Your task to perform on an android device: Show me the alarms in the clock app Image 0: 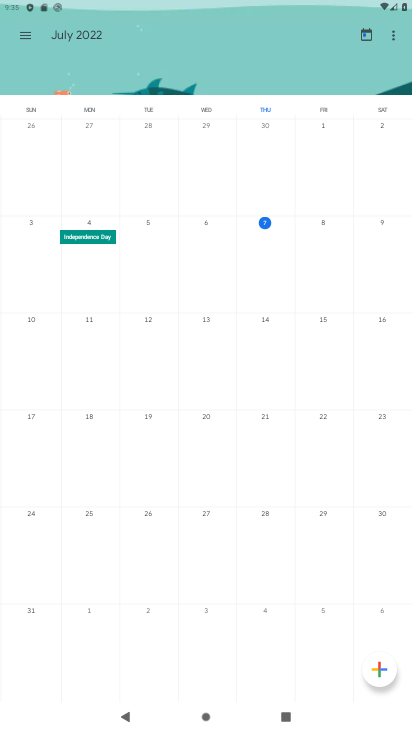
Step 0: press home button
Your task to perform on an android device: Show me the alarms in the clock app Image 1: 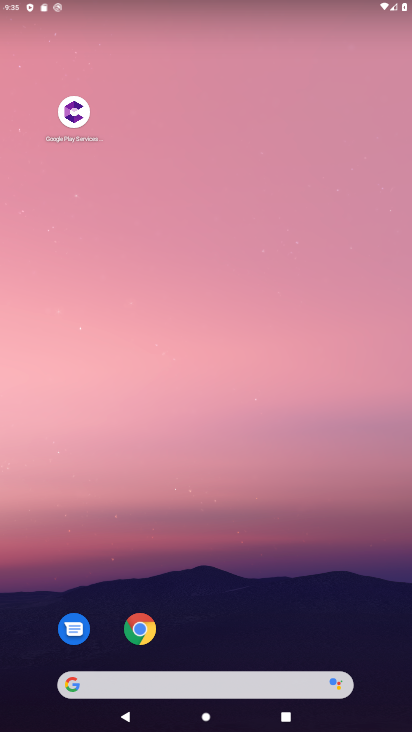
Step 1: drag from (234, 641) to (215, 234)
Your task to perform on an android device: Show me the alarms in the clock app Image 2: 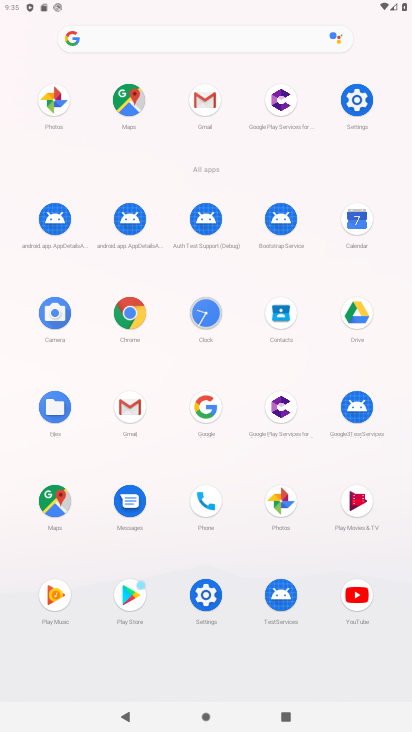
Step 2: click (198, 329)
Your task to perform on an android device: Show me the alarms in the clock app Image 3: 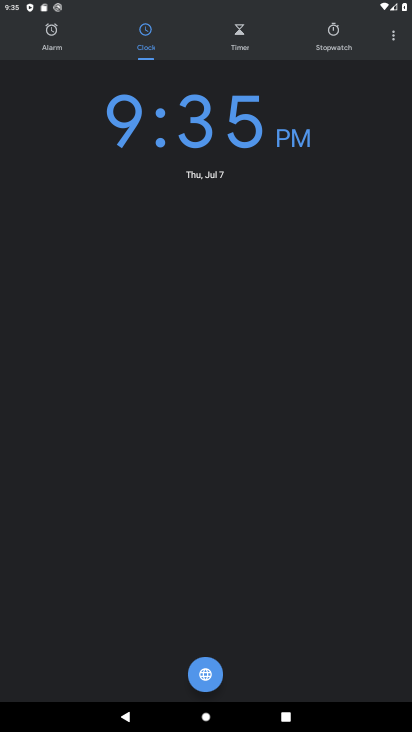
Step 3: click (50, 39)
Your task to perform on an android device: Show me the alarms in the clock app Image 4: 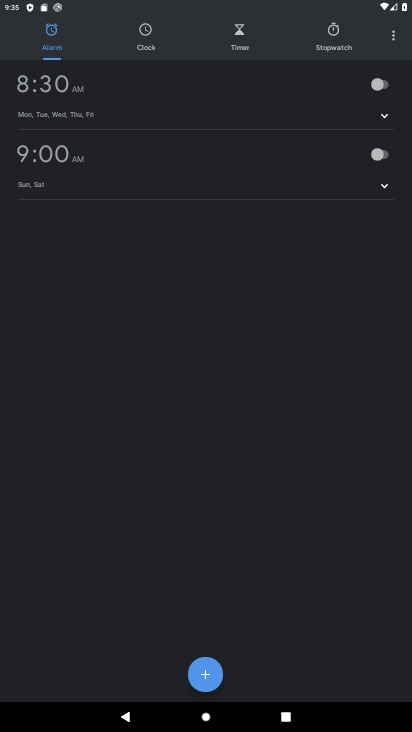
Step 4: task complete